Your task to perform on an android device: Open my contact list Image 0: 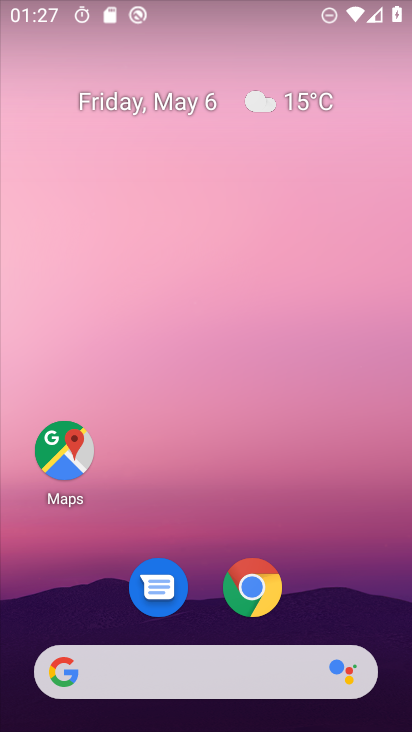
Step 0: drag from (380, 619) to (357, 279)
Your task to perform on an android device: Open my contact list Image 1: 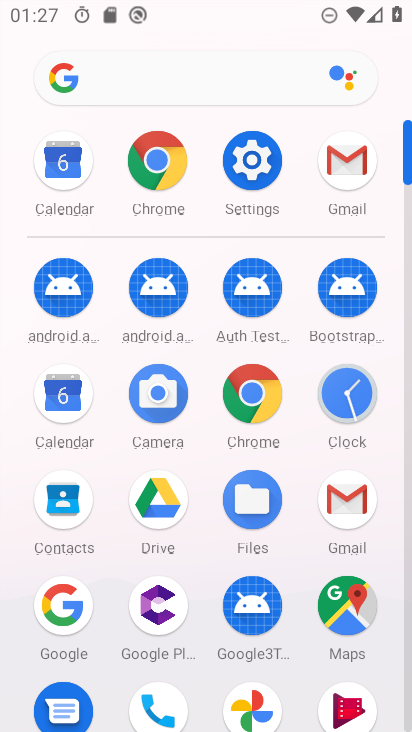
Step 1: click (61, 502)
Your task to perform on an android device: Open my contact list Image 2: 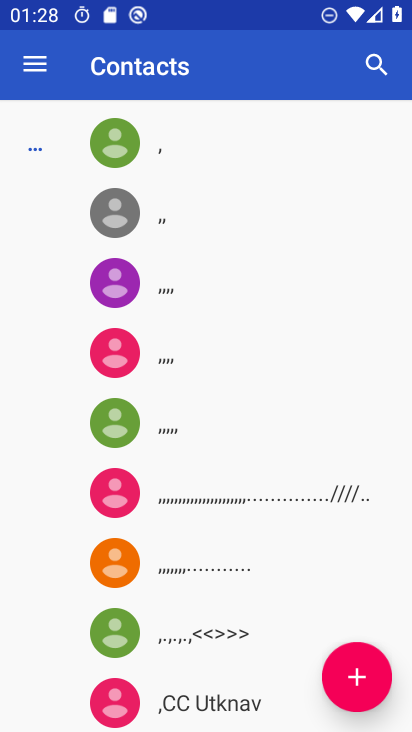
Step 2: task complete